Your task to perform on an android device: toggle pop-ups in chrome Image 0: 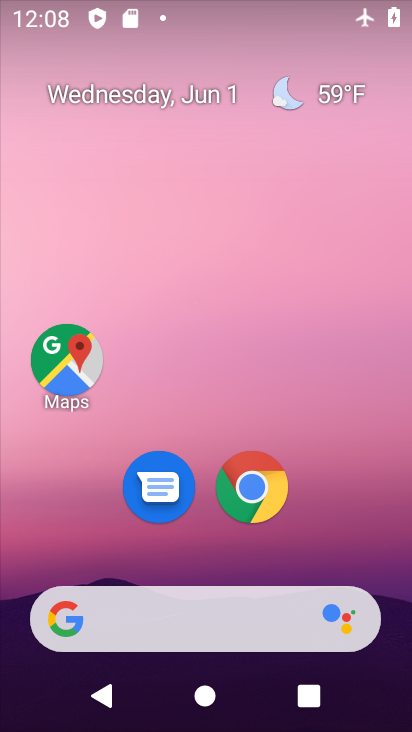
Step 0: click (248, 488)
Your task to perform on an android device: toggle pop-ups in chrome Image 1: 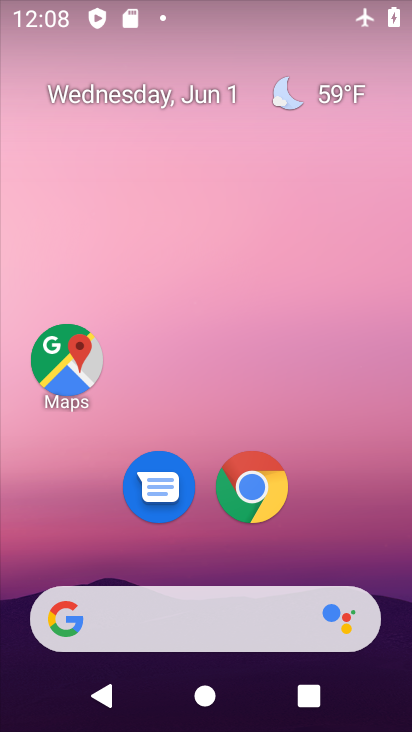
Step 1: click (275, 481)
Your task to perform on an android device: toggle pop-ups in chrome Image 2: 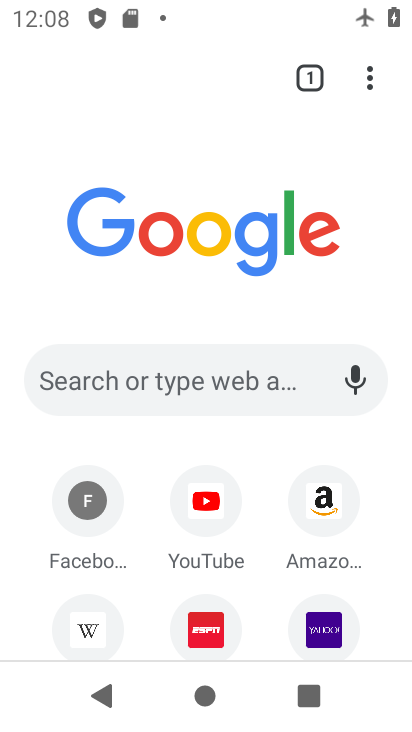
Step 2: drag from (365, 76) to (104, 546)
Your task to perform on an android device: toggle pop-ups in chrome Image 3: 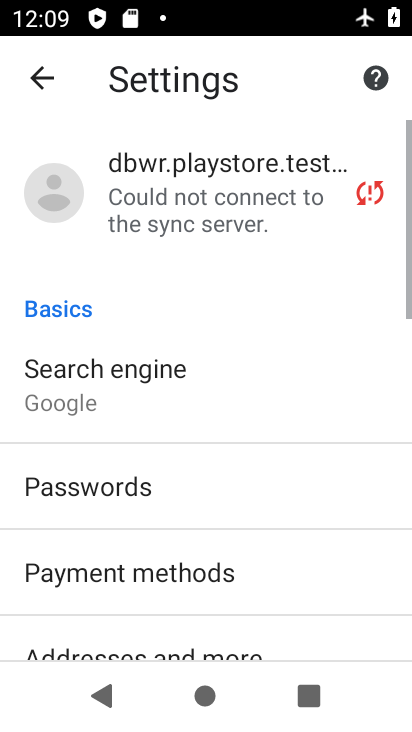
Step 3: drag from (133, 567) to (198, 101)
Your task to perform on an android device: toggle pop-ups in chrome Image 4: 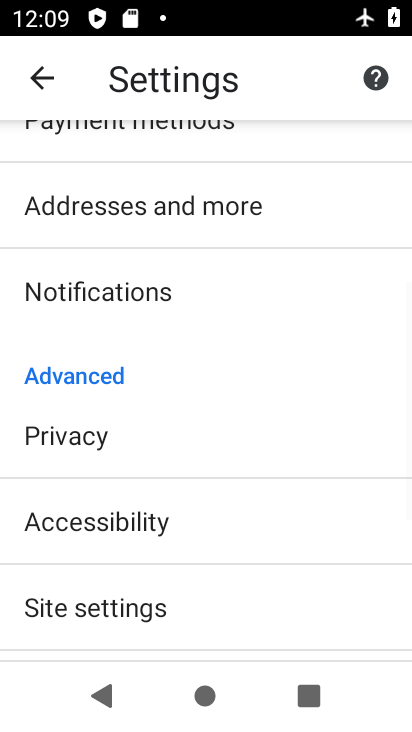
Step 4: drag from (128, 584) to (180, 114)
Your task to perform on an android device: toggle pop-ups in chrome Image 5: 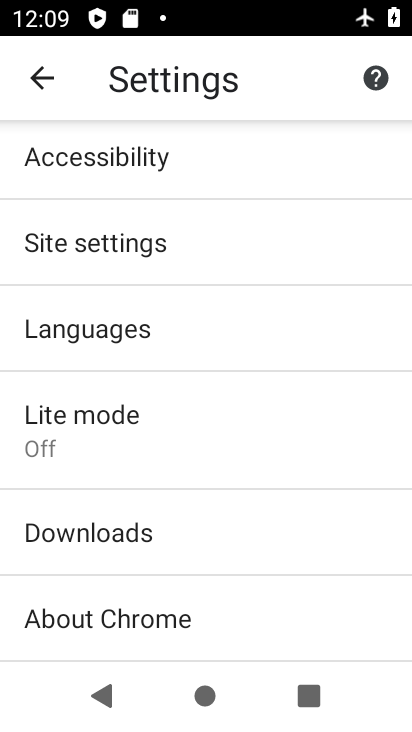
Step 5: click (123, 244)
Your task to perform on an android device: toggle pop-ups in chrome Image 6: 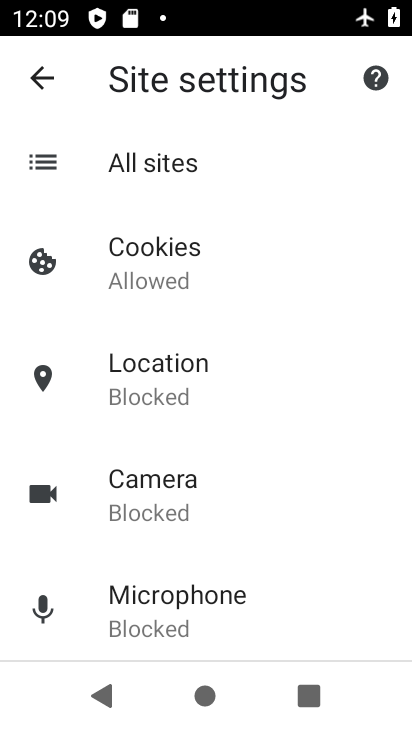
Step 6: drag from (172, 612) to (208, 93)
Your task to perform on an android device: toggle pop-ups in chrome Image 7: 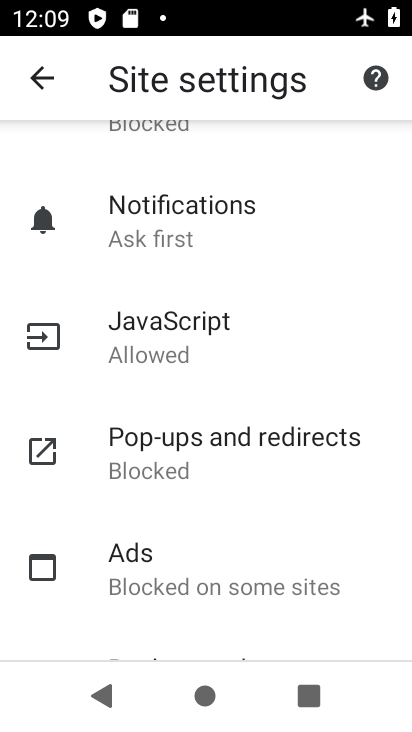
Step 7: click (144, 436)
Your task to perform on an android device: toggle pop-ups in chrome Image 8: 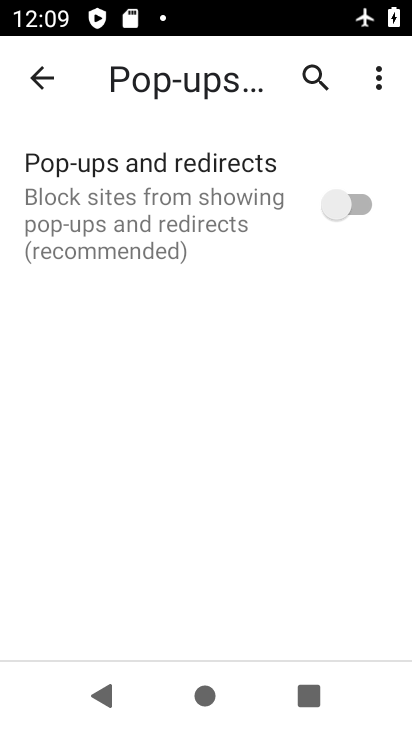
Step 8: click (352, 202)
Your task to perform on an android device: toggle pop-ups in chrome Image 9: 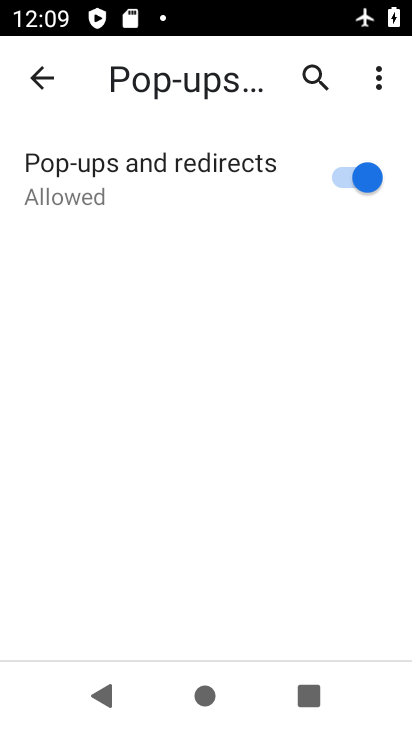
Step 9: task complete